Your task to perform on an android device: What is the capital of Italy? Image 0: 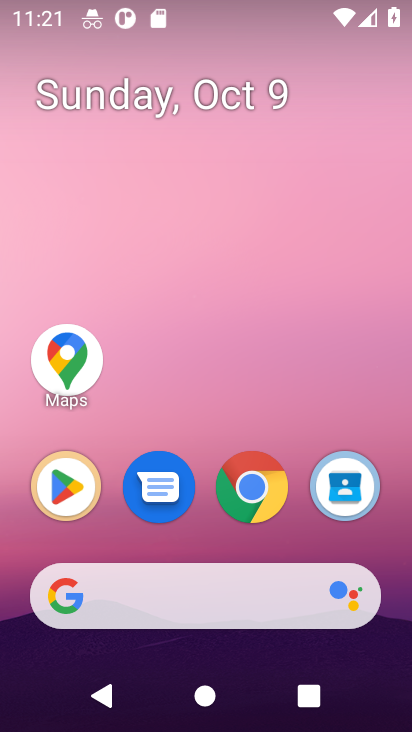
Step 0: click (267, 496)
Your task to perform on an android device: What is the capital of Italy? Image 1: 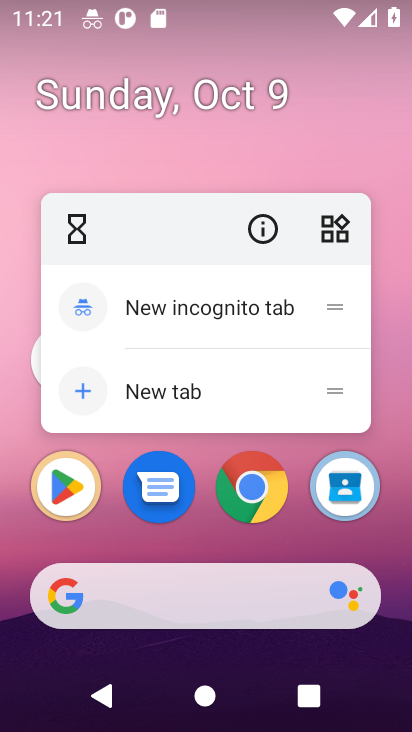
Step 1: click (267, 496)
Your task to perform on an android device: What is the capital of Italy? Image 2: 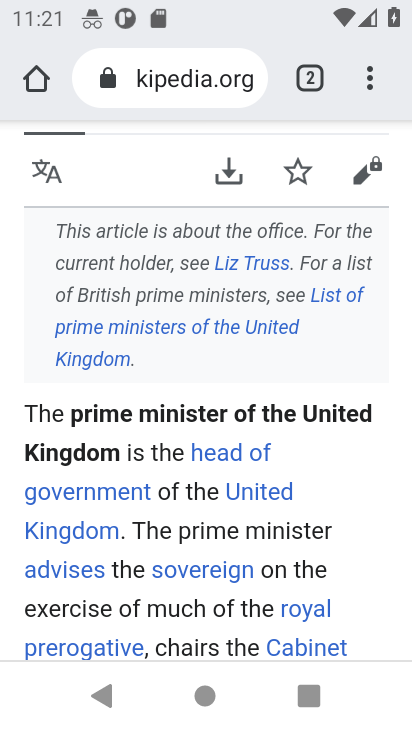
Step 2: click (226, 99)
Your task to perform on an android device: What is the capital of Italy? Image 3: 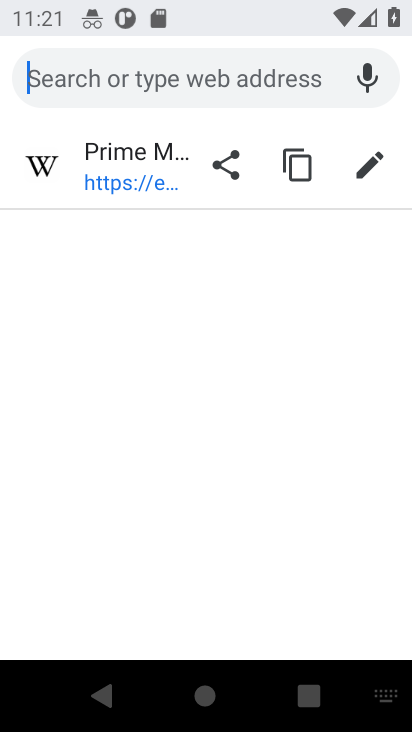
Step 3: type "capital of italy"
Your task to perform on an android device: What is the capital of Italy? Image 4: 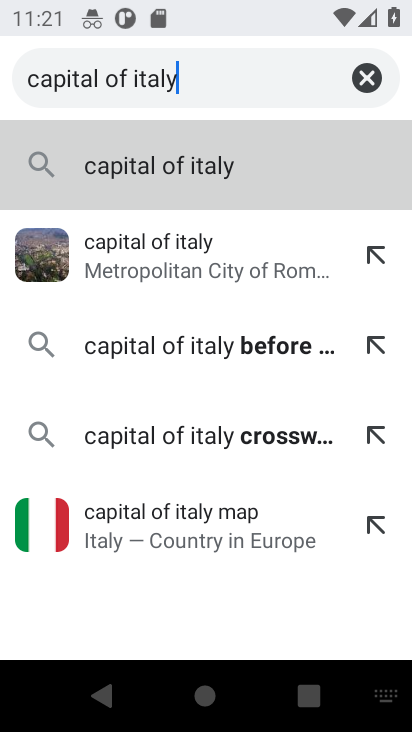
Step 4: press enter
Your task to perform on an android device: What is the capital of Italy? Image 5: 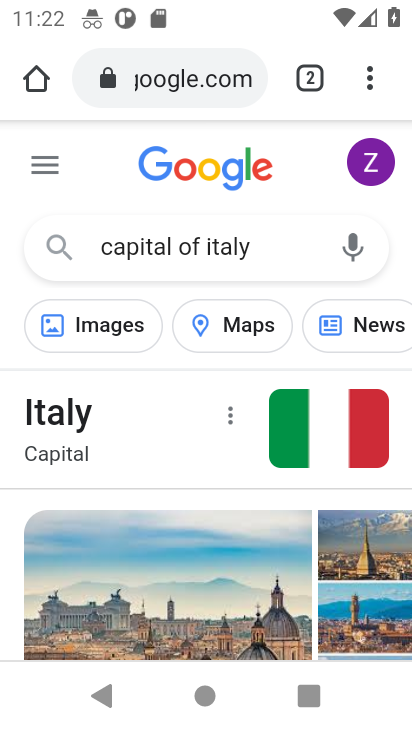
Step 5: task complete